Your task to perform on an android device: Open Chrome and go to settings Image 0: 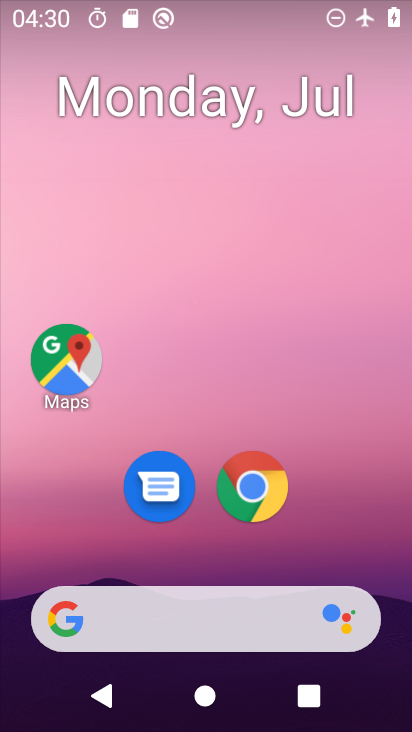
Step 0: click (276, 475)
Your task to perform on an android device: Open Chrome and go to settings Image 1: 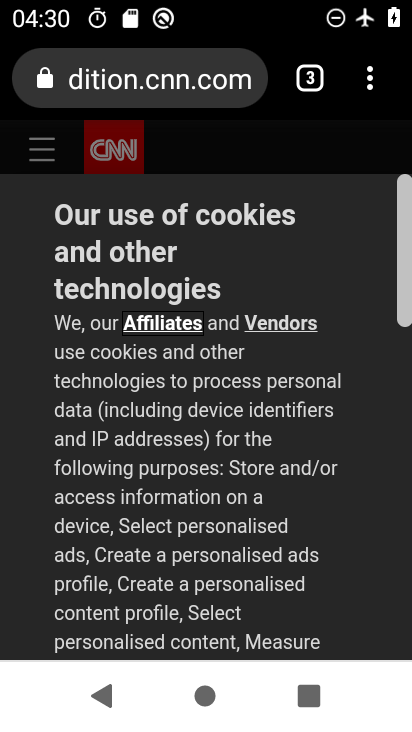
Step 1: task complete